Your task to perform on an android device: Go to Yahoo.com Image 0: 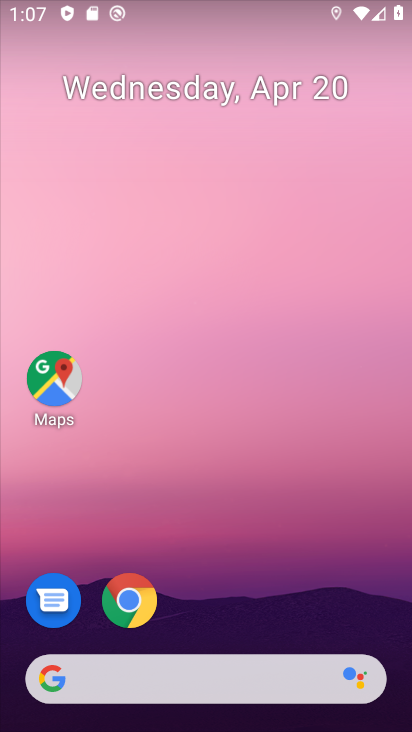
Step 0: click (126, 603)
Your task to perform on an android device: Go to Yahoo.com Image 1: 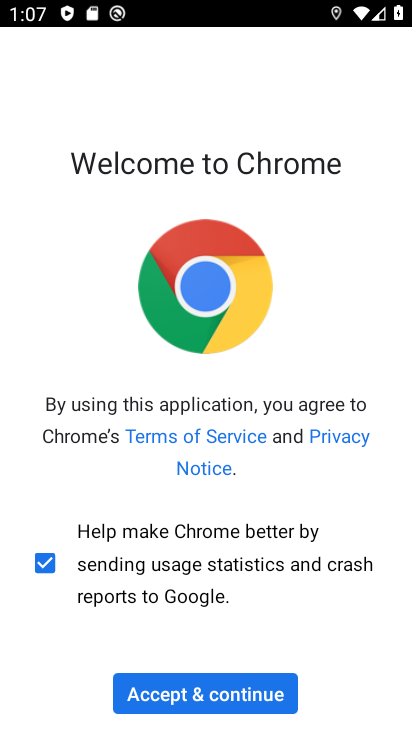
Step 1: click (208, 697)
Your task to perform on an android device: Go to Yahoo.com Image 2: 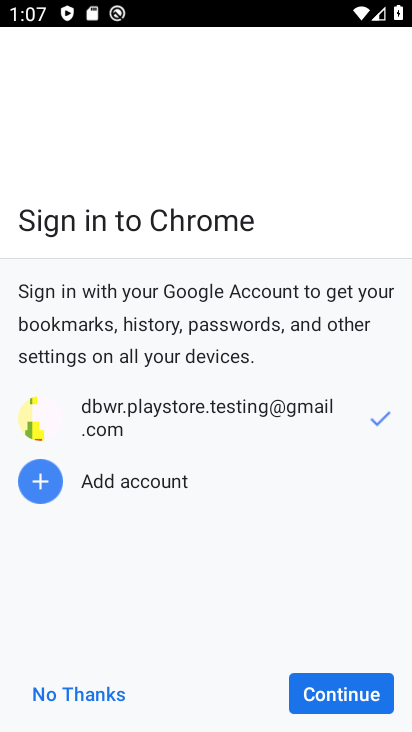
Step 2: click (333, 695)
Your task to perform on an android device: Go to Yahoo.com Image 3: 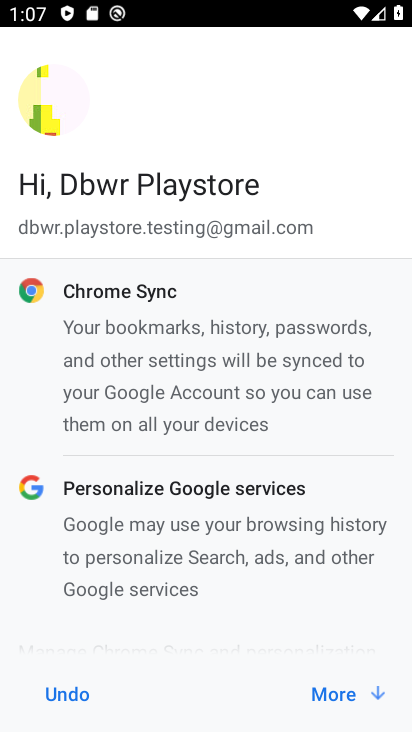
Step 3: click (335, 695)
Your task to perform on an android device: Go to Yahoo.com Image 4: 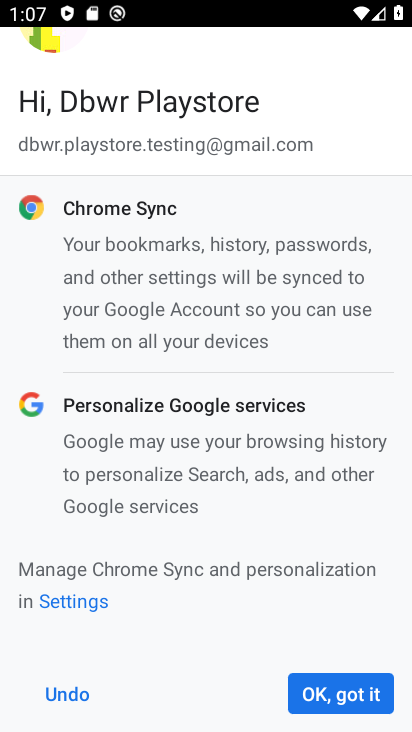
Step 4: click (348, 698)
Your task to perform on an android device: Go to Yahoo.com Image 5: 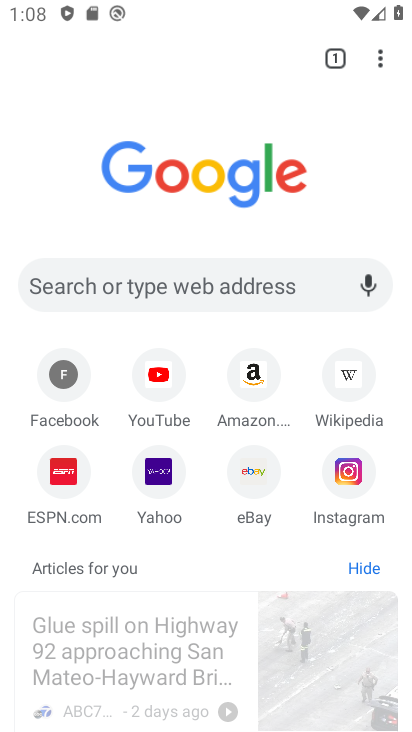
Step 5: click (117, 280)
Your task to perform on an android device: Go to Yahoo.com Image 6: 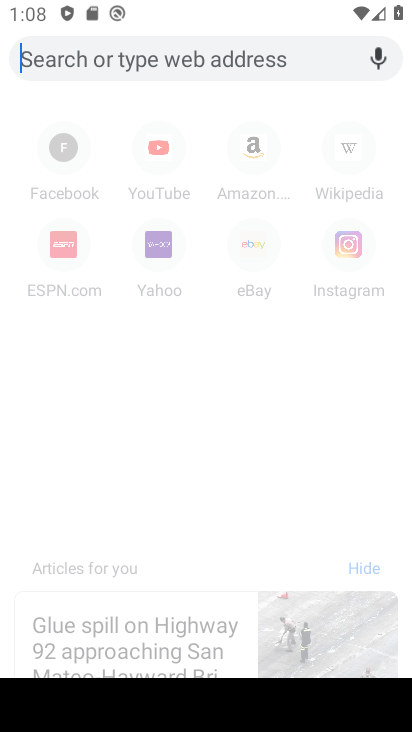
Step 6: type "yahoo.com"
Your task to perform on an android device: Go to Yahoo.com Image 7: 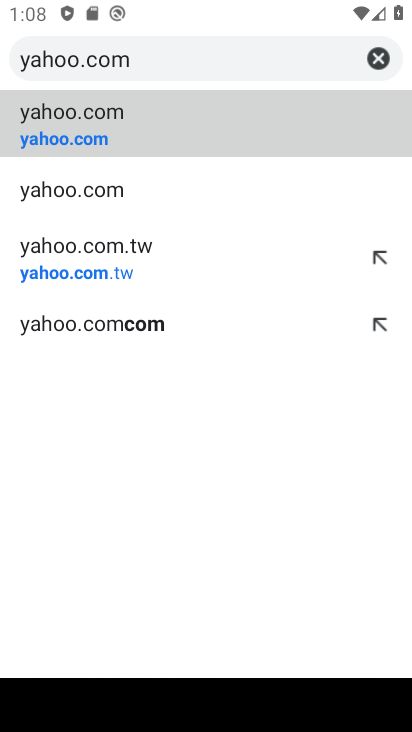
Step 7: click (63, 125)
Your task to perform on an android device: Go to Yahoo.com Image 8: 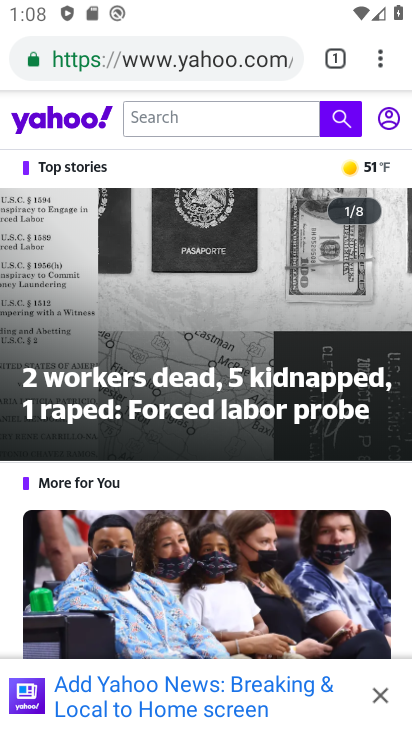
Step 8: task complete